Your task to perform on an android device: change the clock style Image 0: 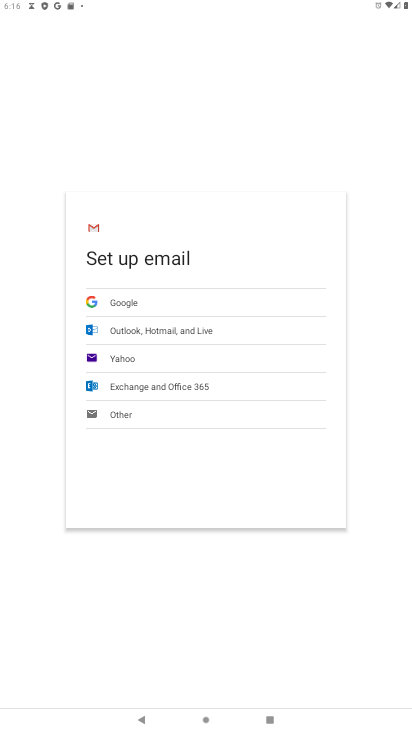
Step 0: press home button
Your task to perform on an android device: change the clock style Image 1: 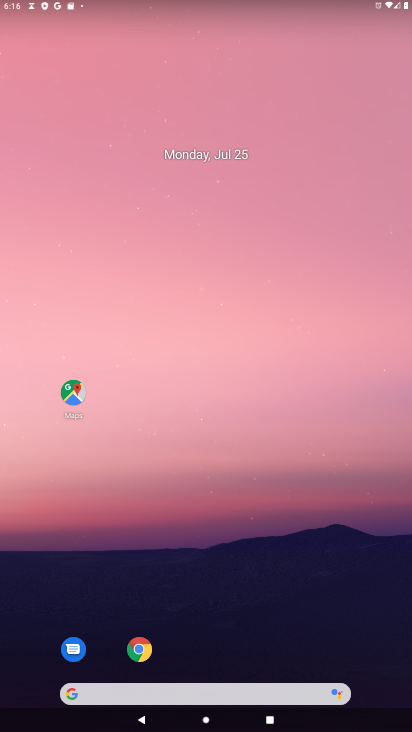
Step 1: drag from (222, 698) to (306, 13)
Your task to perform on an android device: change the clock style Image 2: 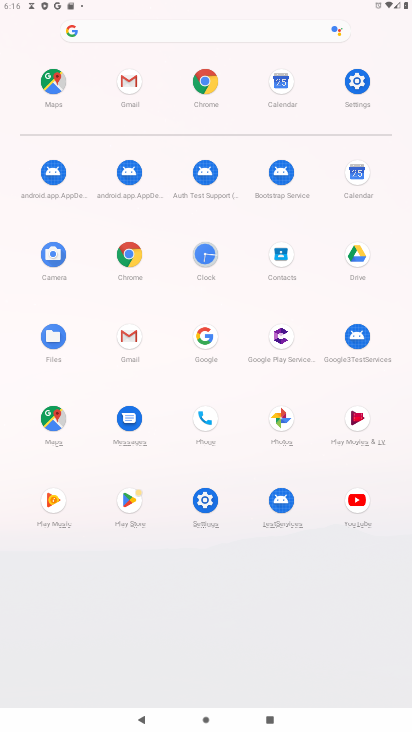
Step 2: click (214, 255)
Your task to perform on an android device: change the clock style Image 3: 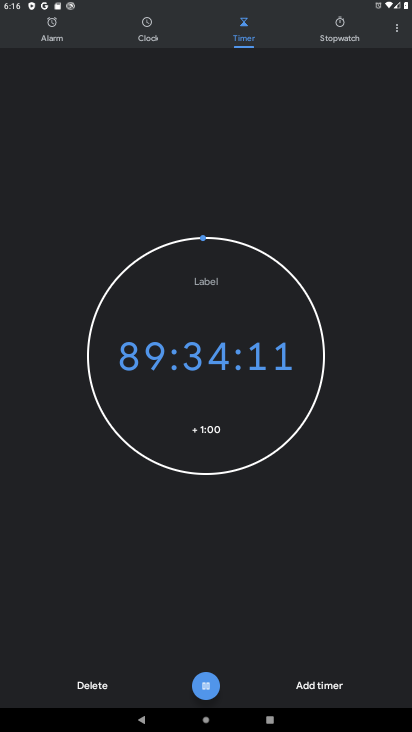
Step 3: click (400, 35)
Your task to perform on an android device: change the clock style Image 4: 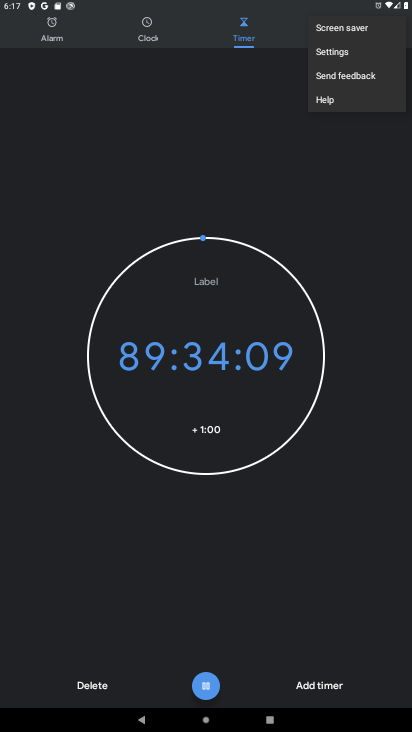
Step 4: click (333, 49)
Your task to perform on an android device: change the clock style Image 5: 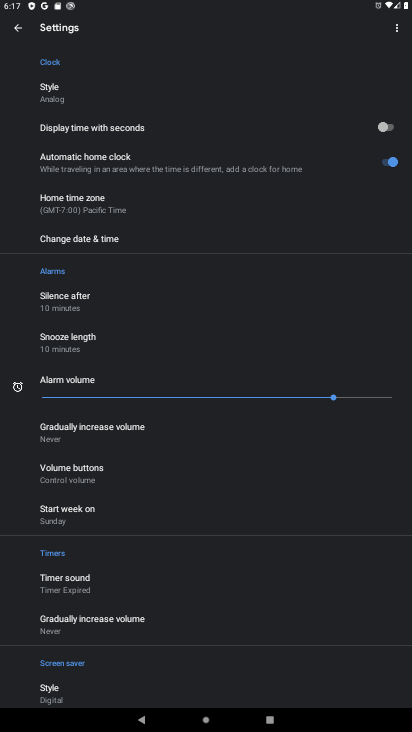
Step 5: click (74, 91)
Your task to perform on an android device: change the clock style Image 6: 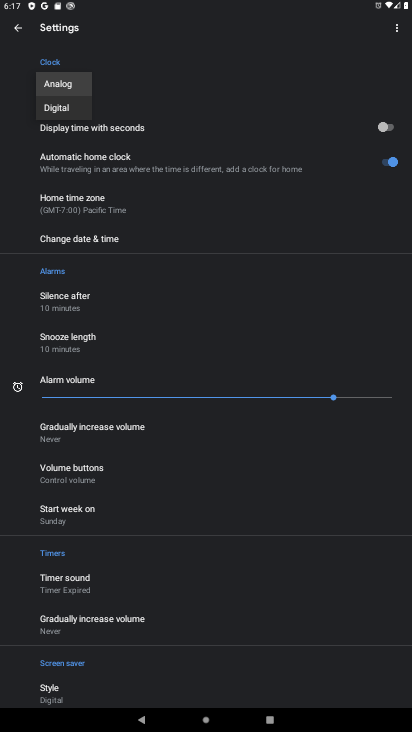
Step 6: click (59, 102)
Your task to perform on an android device: change the clock style Image 7: 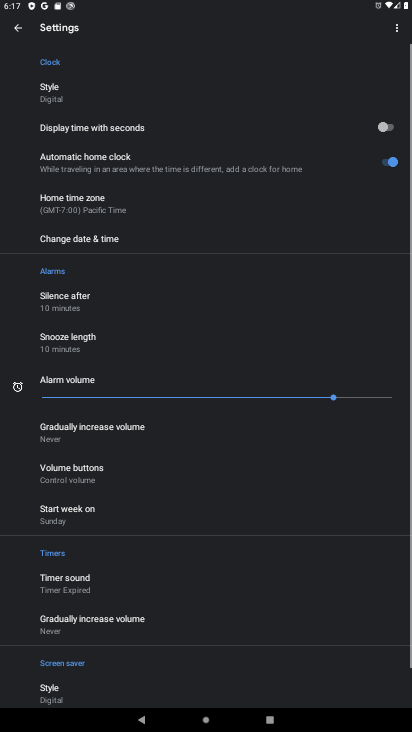
Step 7: task complete